Your task to perform on an android device: toggle pop-ups in chrome Image 0: 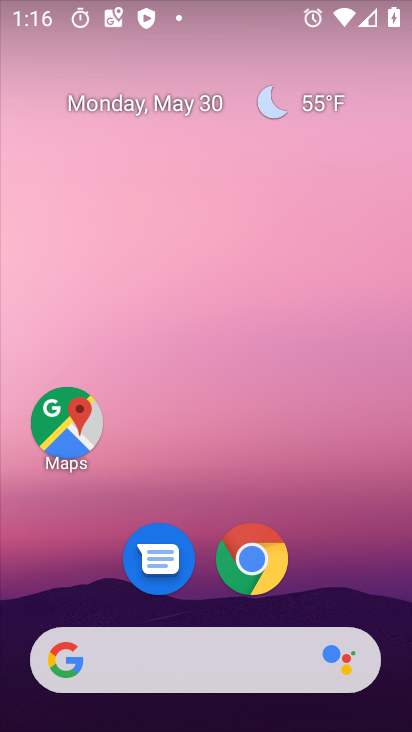
Step 0: click (273, 553)
Your task to perform on an android device: toggle pop-ups in chrome Image 1: 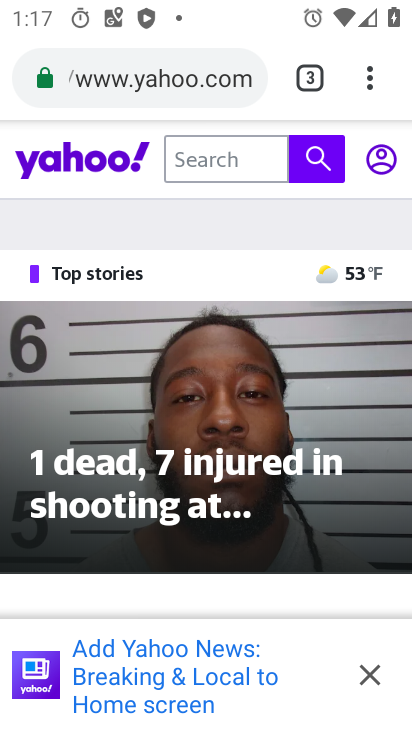
Step 1: press back button
Your task to perform on an android device: toggle pop-ups in chrome Image 2: 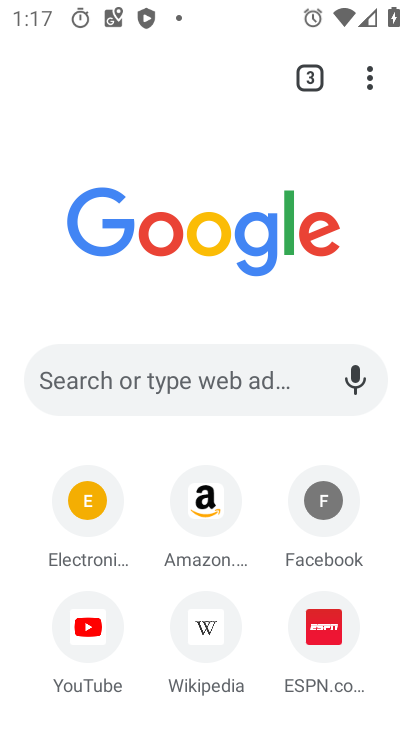
Step 2: drag from (369, 69) to (101, 613)
Your task to perform on an android device: toggle pop-ups in chrome Image 3: 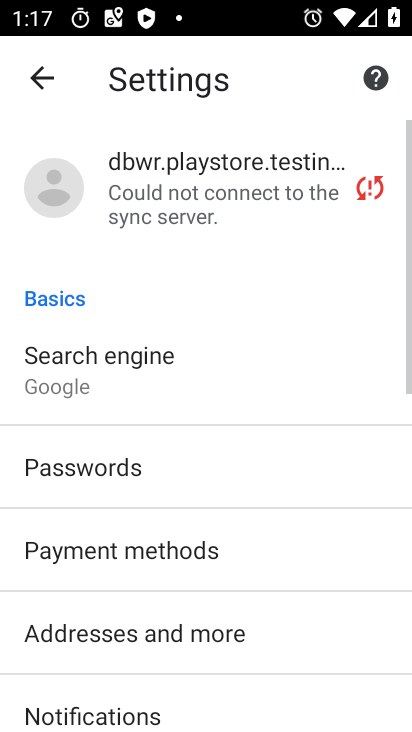
Step 3: drag from (177, 623) to (266, 83)
Your task to perform on an android device: toggle pop-ups in chrome Image 4: 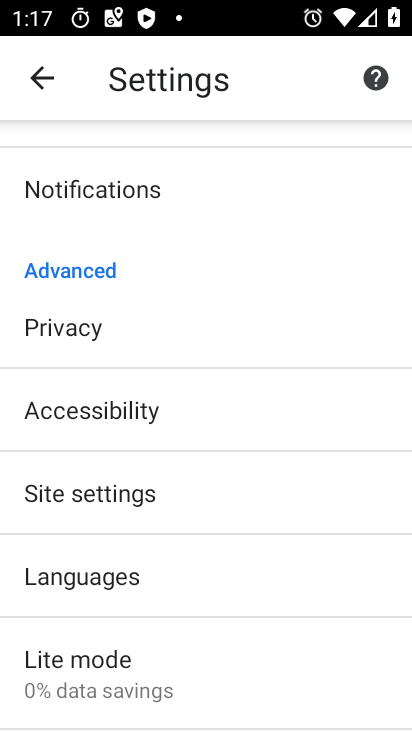
Step 4: click (121, 500)
Your task to perform on an android device: toggle pop-ups in chrome Image 5: 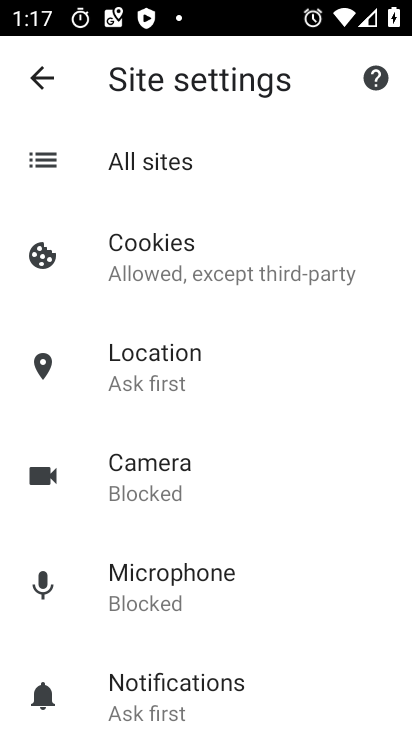
Step 5: drag from (189, 661) to (302, 126)
Your task to perform on an android device: toggle pop-ups in chrome Image 6: 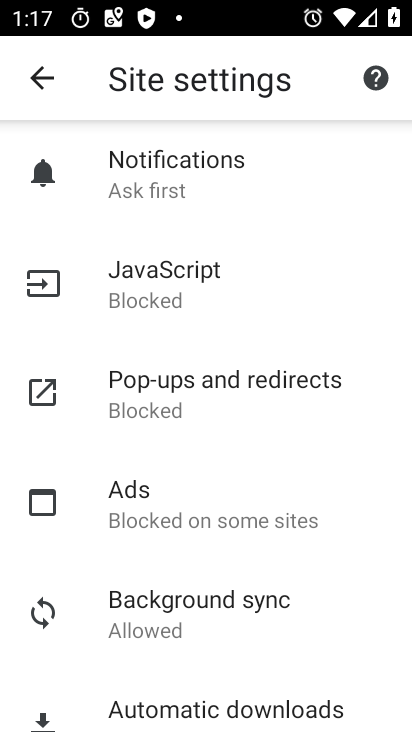
Step 6: click (200, 382)
Your task to perform on an android device: toggle pop-ups in chrome Image 7: 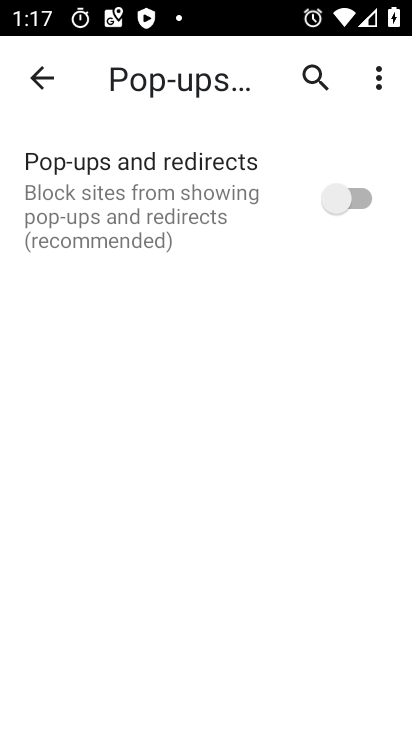
Step 7: click (336, 195)
Your task to perform on an android device: toggle pop-ups in chrome Image 8: 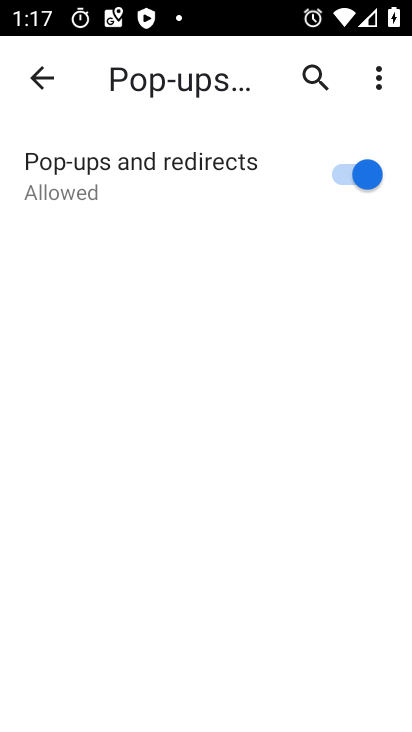
Step 8: task complete